Your task to perform on an android device: open app "Expedia: Hotels, Flights & Car" (install if not already installed) Image 0: 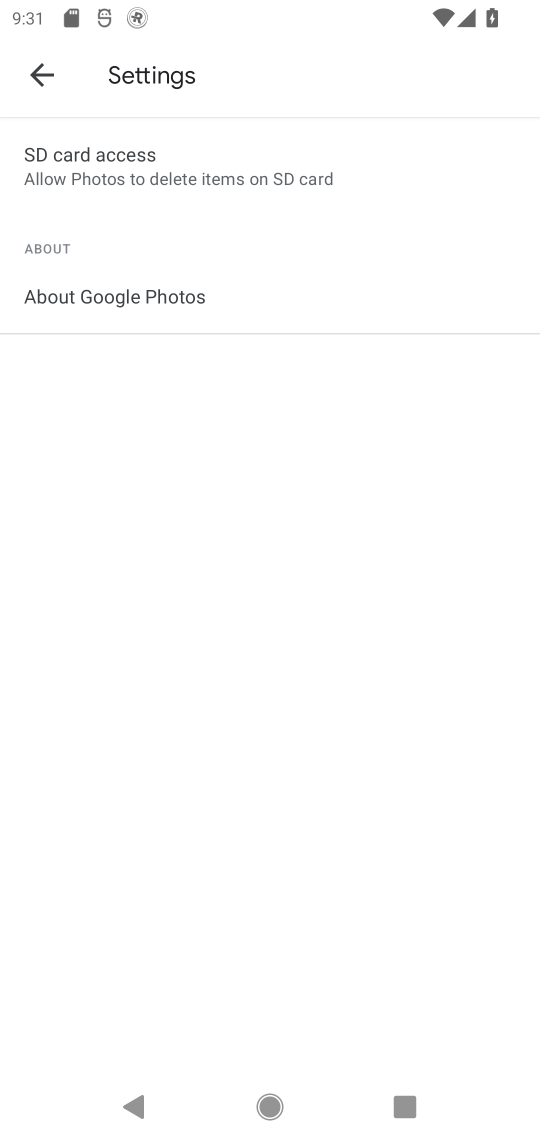
Step 0: press home button
Your task to perform on an android device: open app "Expedia: Hotels, Flights & Car" (install if not already installed) Image 1: 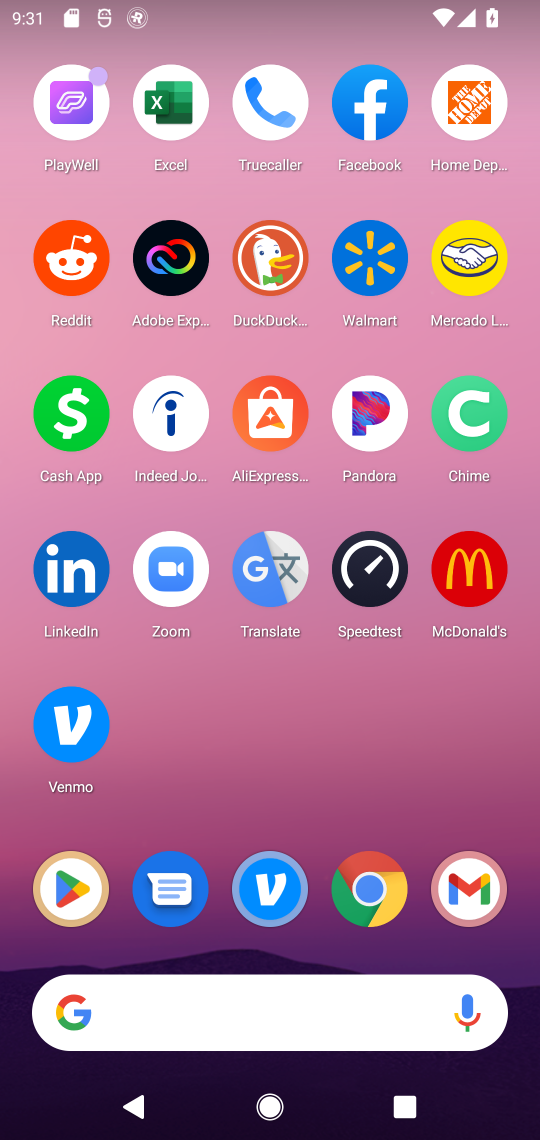
Step 1: click (71, 898)
Your task to perform on an android device: open app "Expedia: Hotels, Flights & Car" (install if not already installed) Image 2: 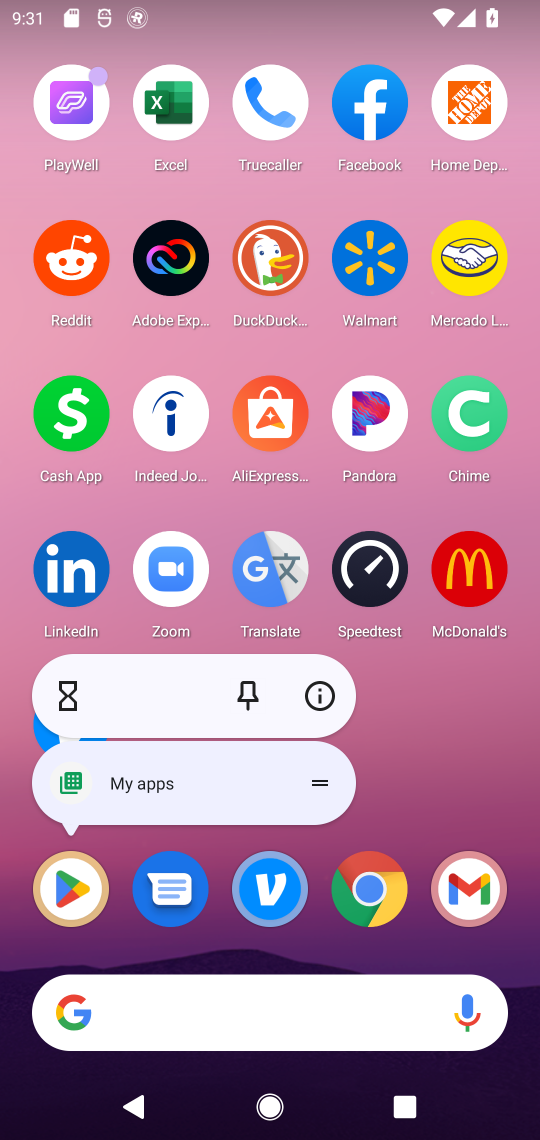
Step 2: click (64, 891)
Your task to perform on an android device: open app "Expedia: Hotels, Flights & Car" (install if not already installed) Image 3: 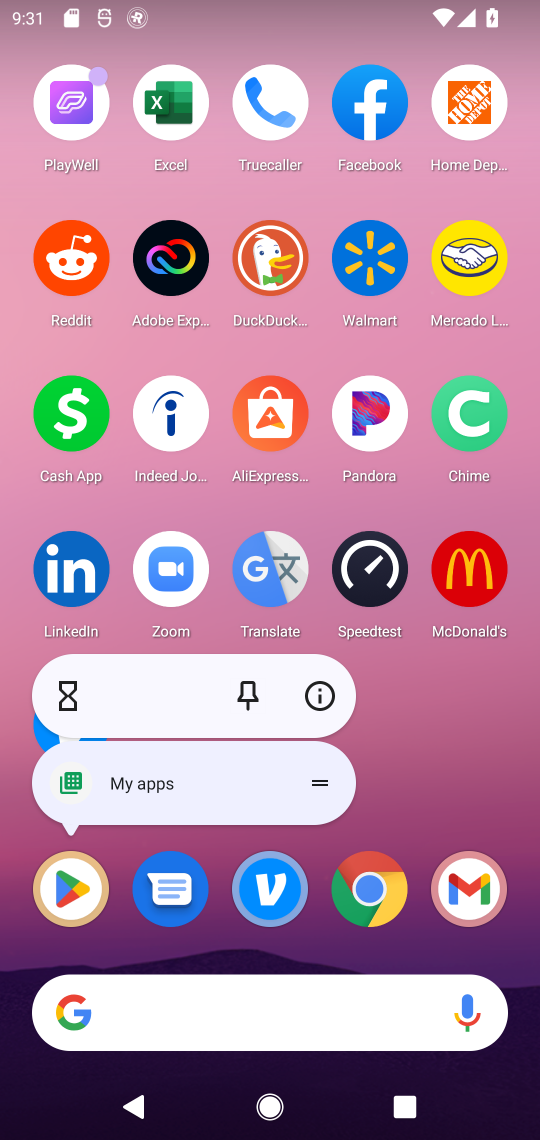
Step 3: click (63, 889)
Your task to perform on an android device: open app "Expedia: Hotels, Flights & Car" (install if not already installed) Image 4: 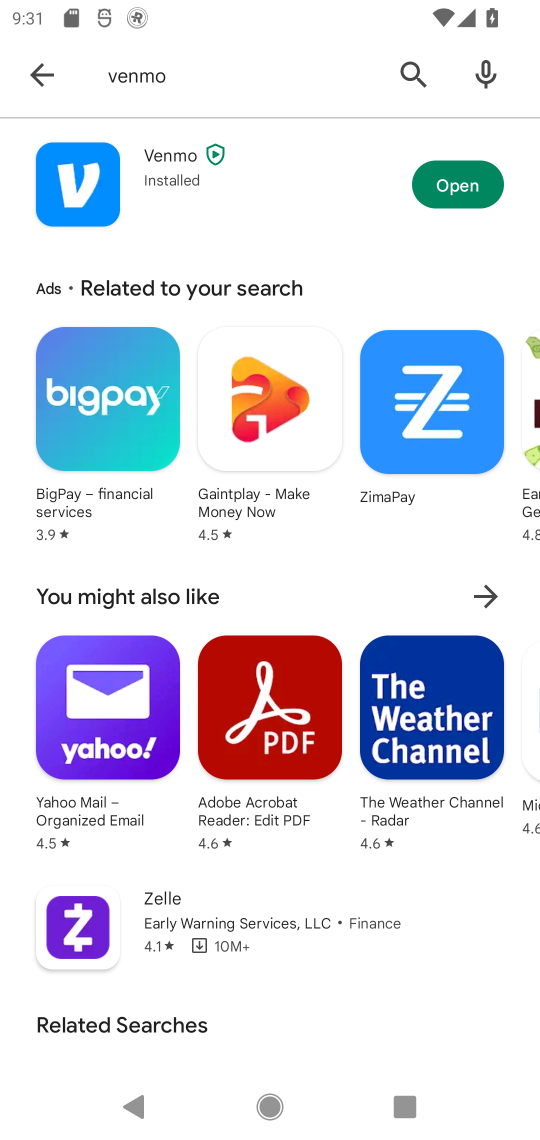
Step 4: click (407, 66)
Your task to perform on an android device: open app "Expedia: Hotels, Flights & Car" (install if not already installed) Image 5: 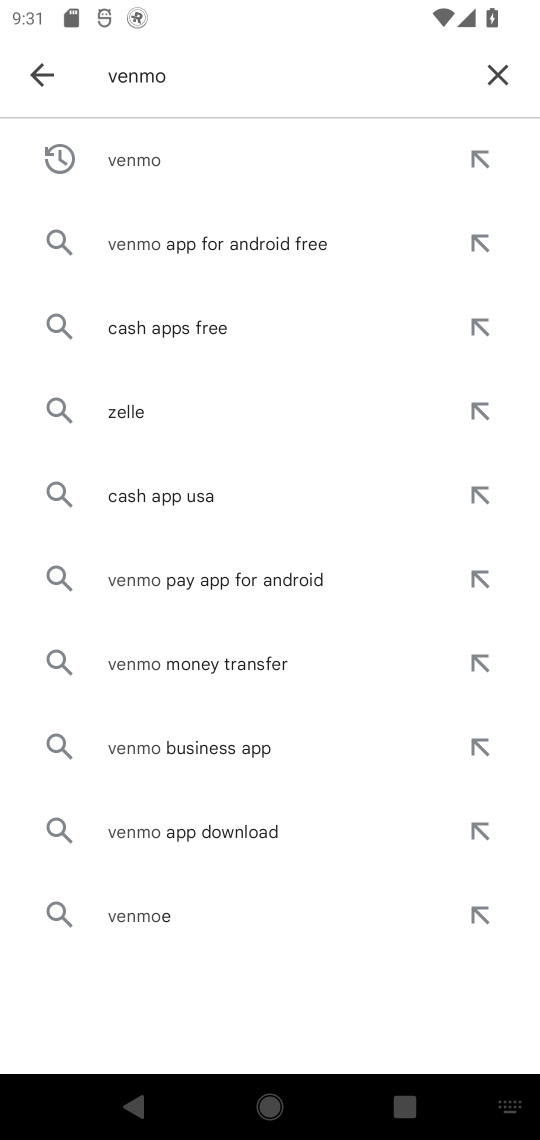
Step 5: click (496, 65)
Your task to perform on an android device: open app "Expedia: Hotels, Flights & Car" (install if not already installed) Image 6: 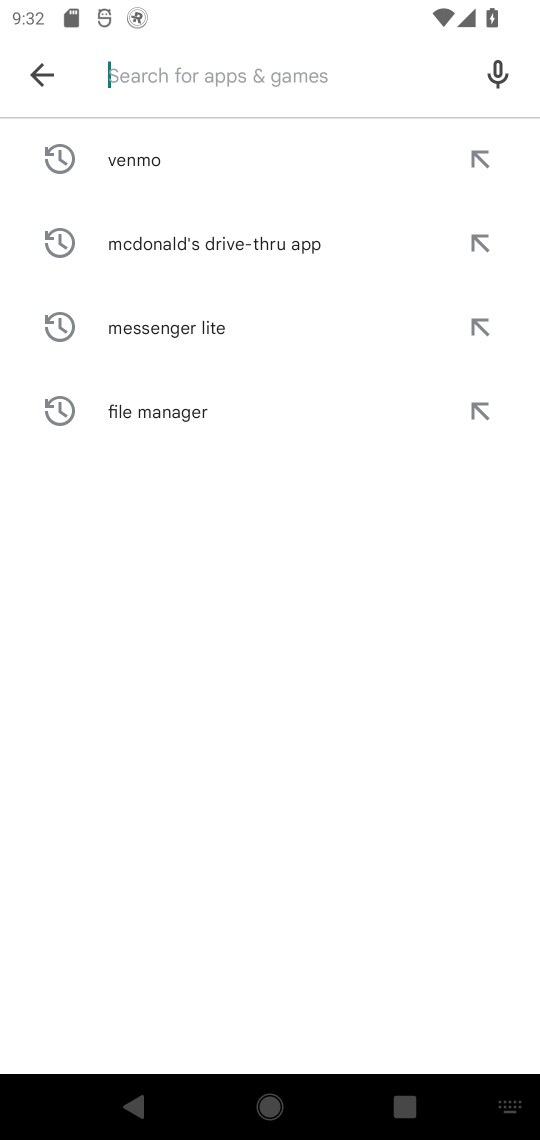
Step 6: type "Expedia: Hotels, Flights & Car"
Your task to perform on an android device: open app "Expedia: Hotels, Flights & Car" (install if not already installed) Image 7: 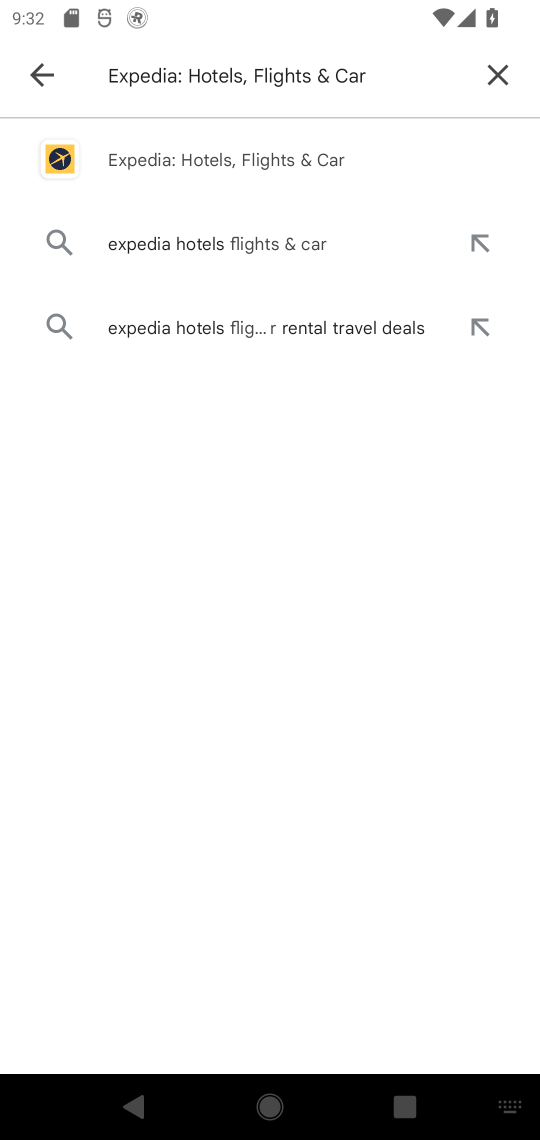
Step 7: click (230, 162)
Your task to perform on an android device: open app "Expedia: Hotels, Flights & Car" (install if not already installed) Image 8: 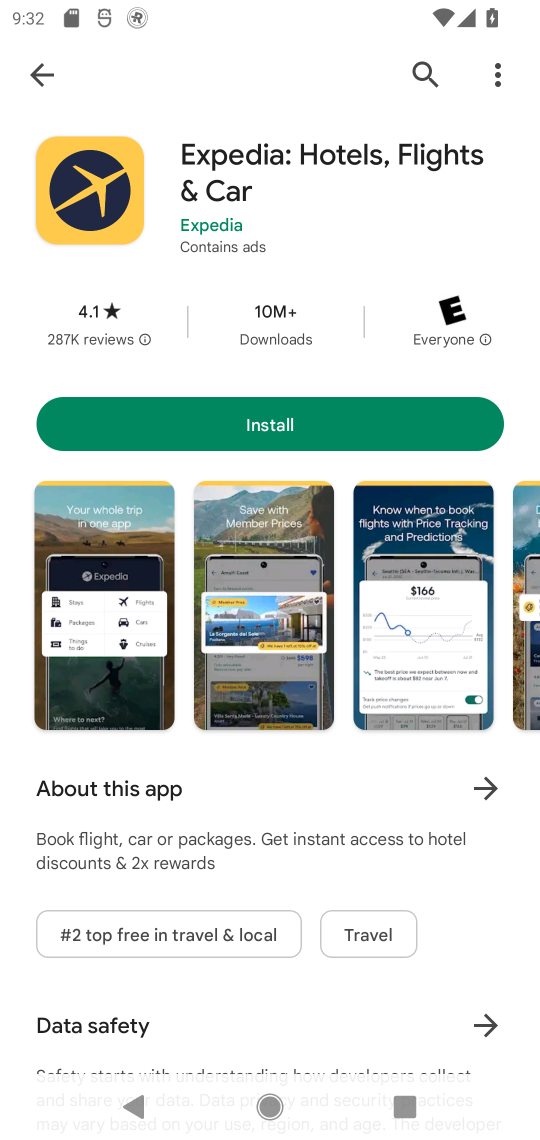
Step 8: click (323, 421)
Your task to perform on an android device: open app "Expedia: Hotels, Flights & Car" (install if not already installed) Image 9: 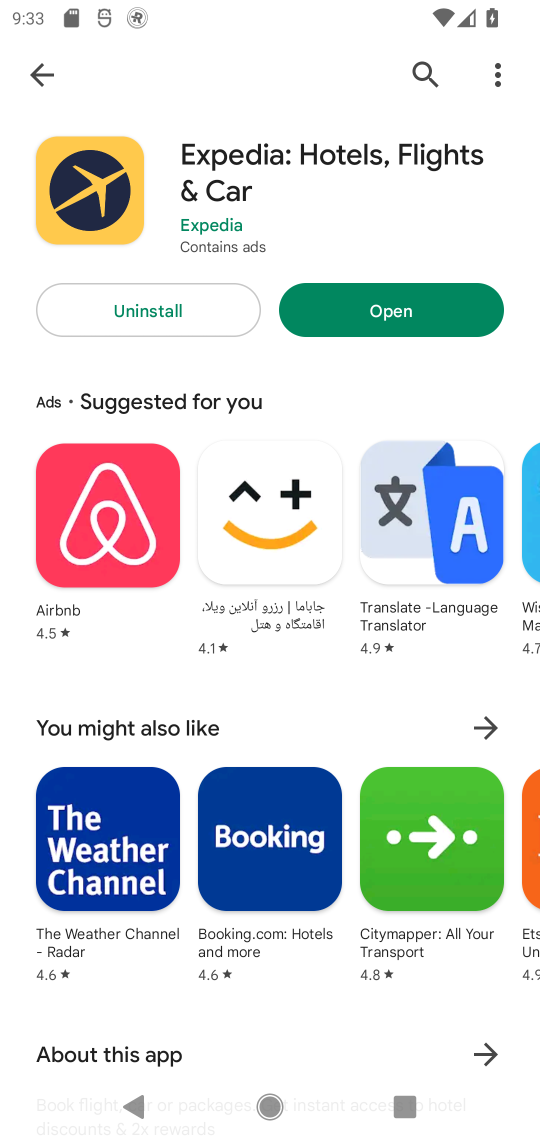
Step 9: click (440, 300)
Your task to perform on an android device: open app "Expedia: Hotels, Flights & Car" (install if not already installed) Image 10: 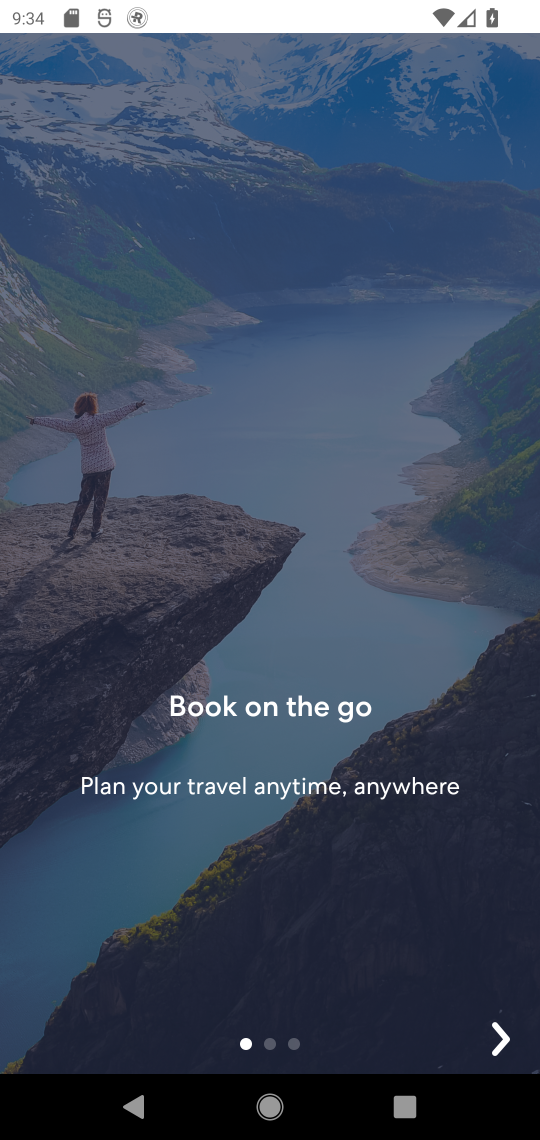
Step 10: task complete